Your task to perform on an android device: allow cookies in the chrome app Image 0: 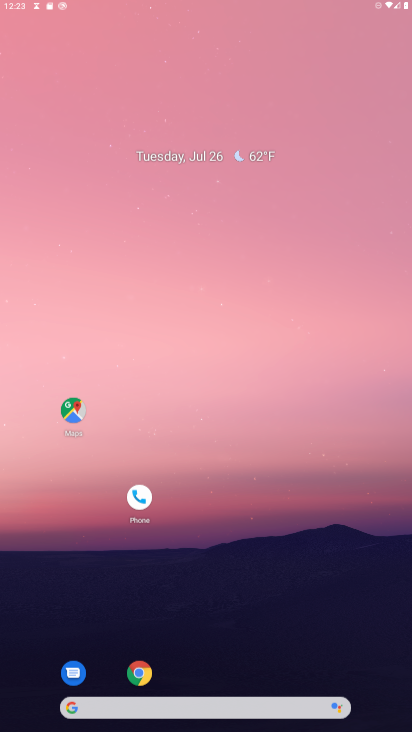
Step 0: press home button
Your task to perform on an android device: allow cookies in the chrome app Image 1: 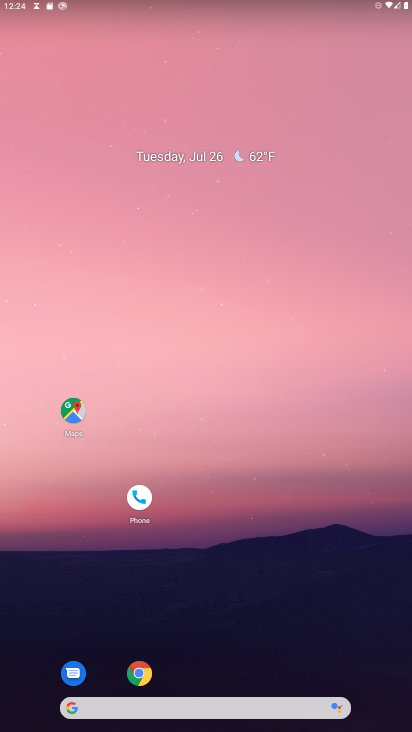
Step 1: drag from (215, 664) to (150, 199)
Your task to perform on an android device: allow cookies in the chrome app Image 2: 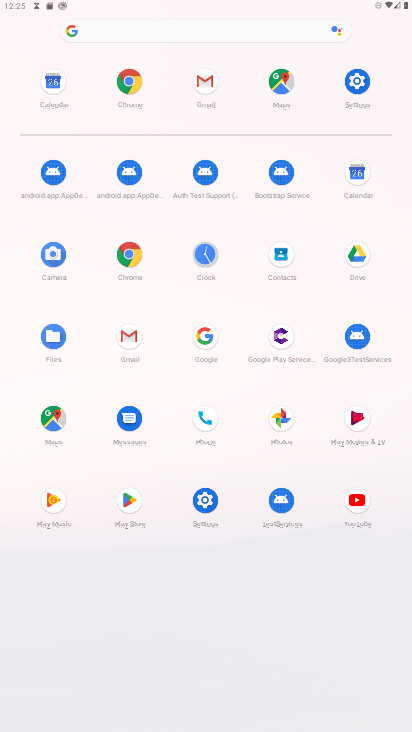
Step 2: click (128, 93)
Your task to perform on an android device: allow cookies in the chrome app Image 3: 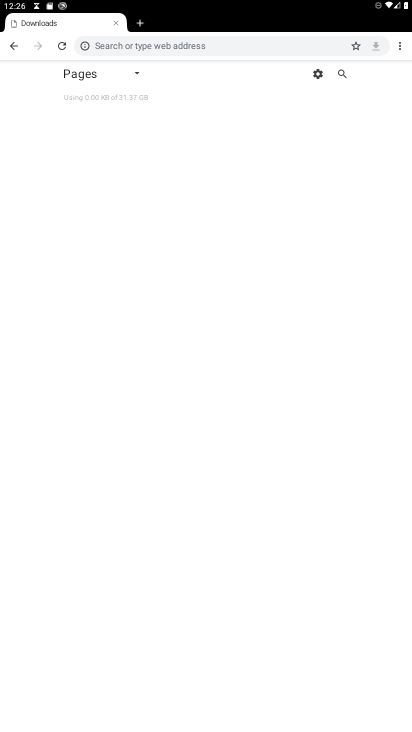
Step 3: drag from (394, 47) to (326, 216)
Your task to perform on an android device: allow cookies in the chrome app Image 4: 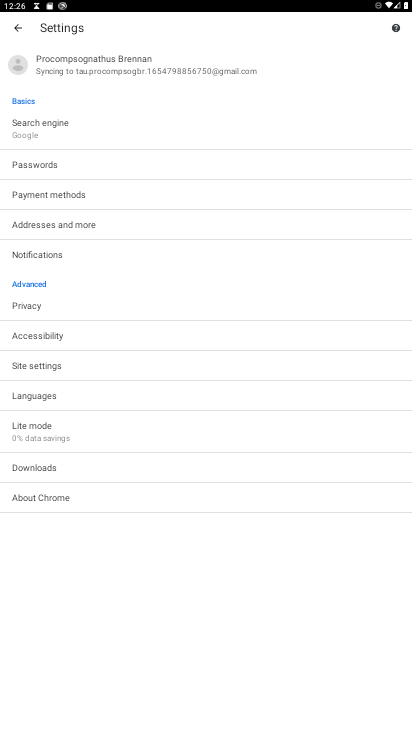
Step 4: click (46, 366)
Your task to perform on an android device: allow cookies in the chrome app Image 5: 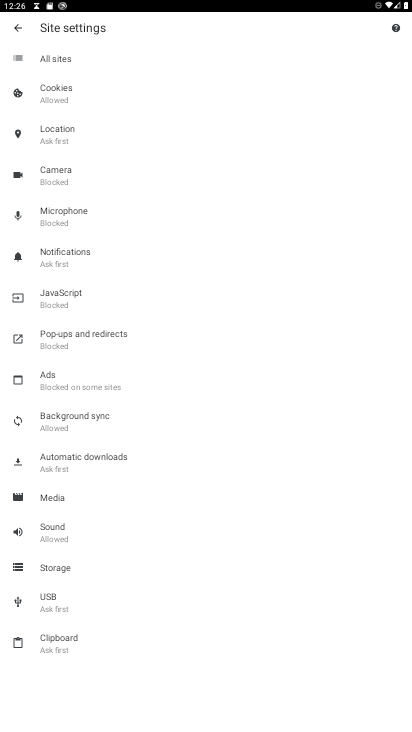
Step 5: click (79, 87)
Your task to perform on an android device: allow cookies in the chrome app Image 6: 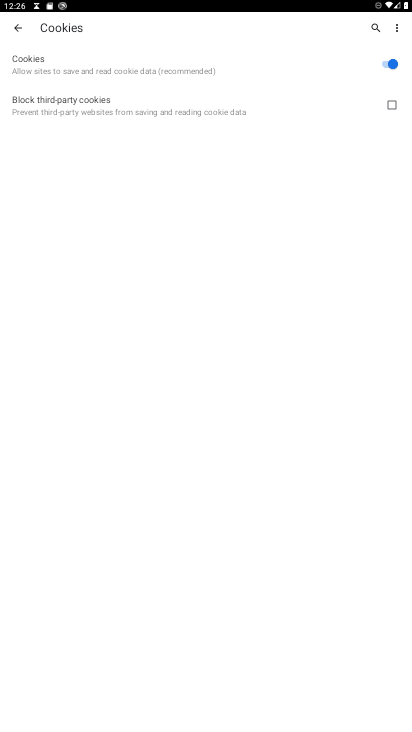
Step 6: task complete